Your task to perform on an android device: turn on notifications settings in the gmail app Image 0: 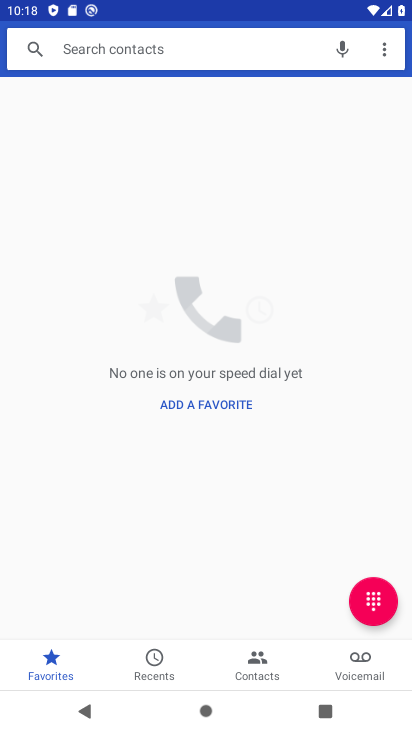
Step 0: press home button
Your task to perform on an android device: turn on notifications settings in the gmail app Image 1: 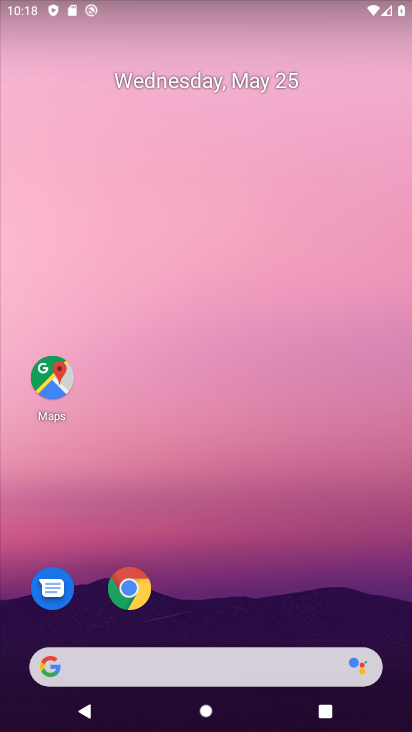
Step 1: drag from (254, 520) to (290, 61)
Your task to perform on an android device: turn on notifications settings in the gmail app Image 2: 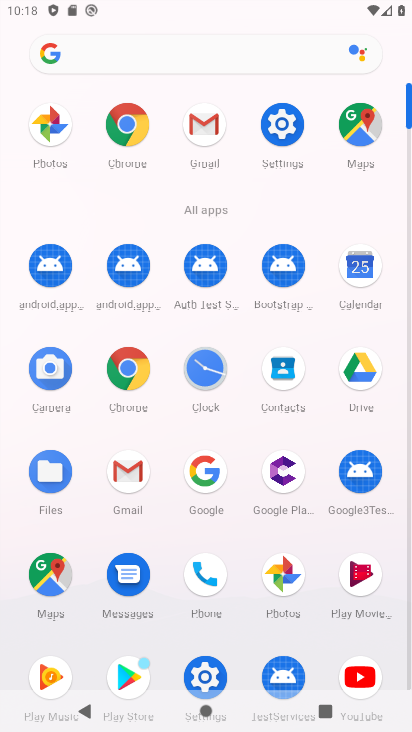
Step 2: click (133, 462)
Your task to perform on an android device: turn on notifications settings in the gmail app Image 3: 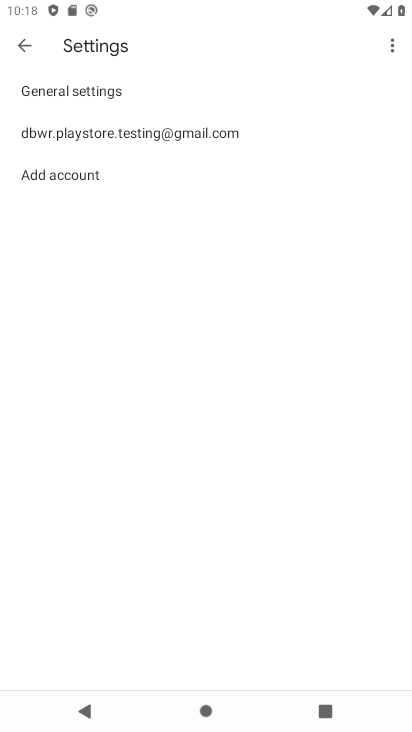
Step 3: click (206, 135)
Your task to perform on an android device: turn on notifications settings in the gmail app Image 4: 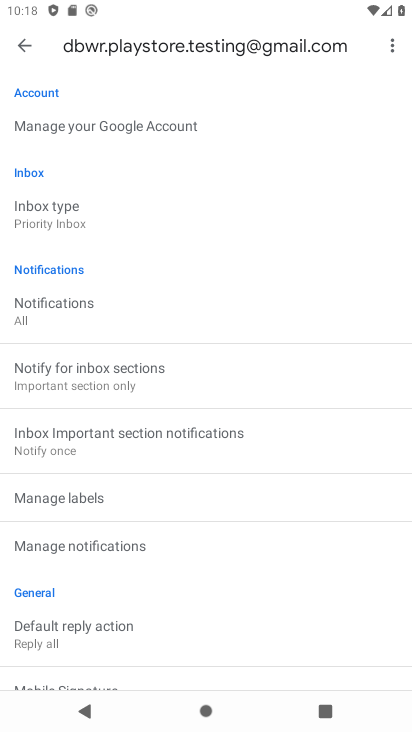
Step 4: click (89, 538)
Your task to perform on an android device: turn on notifications settings in the gmail app Image 5: 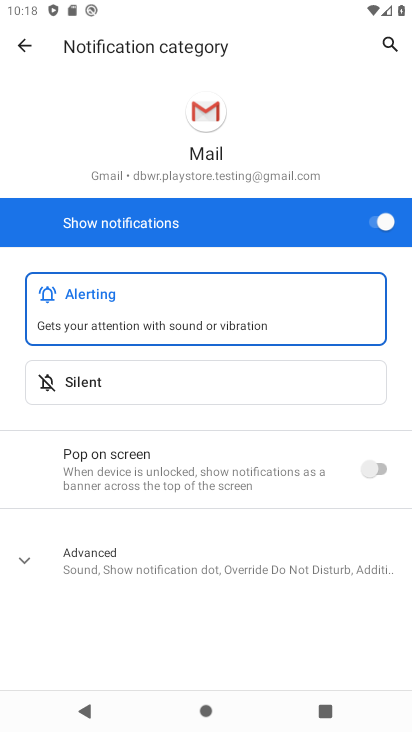
Step 5: task complete